Your task to perform on an android device: turn off picture-in-picture Image 0: 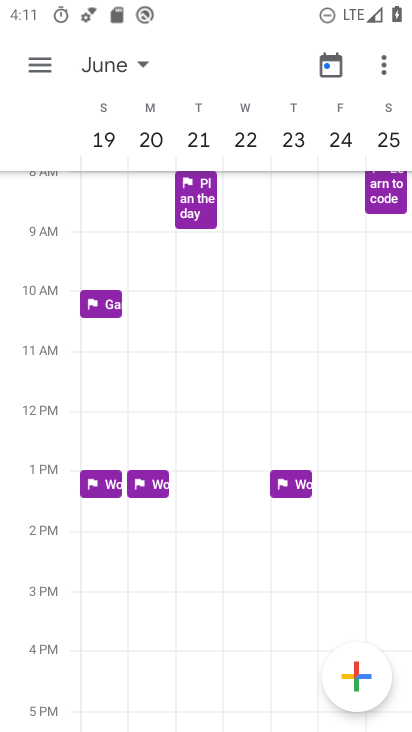
Step 0: press home button
Your task to perform on an android device: turn off picture-in-picture Image 1: 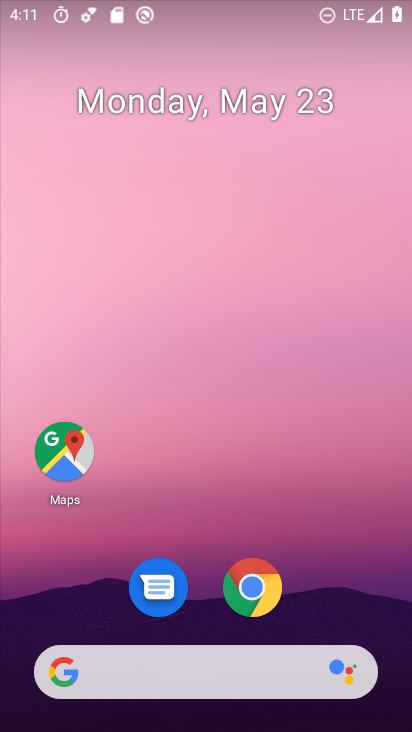
Step 1: click (237, 592)
Your task to perform on an android device: turn off picture-in-picture Image 2: 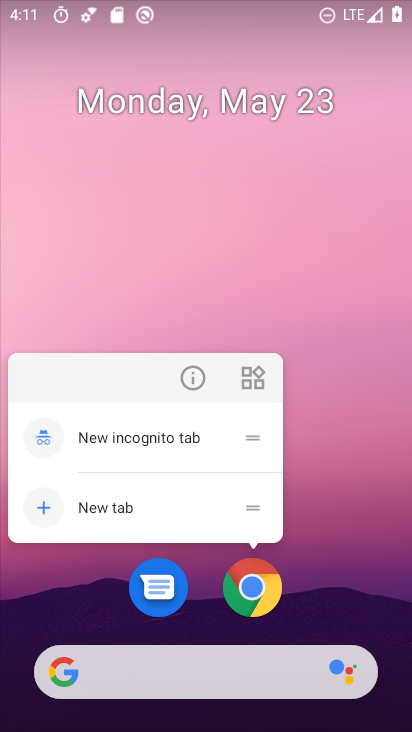
Step 2: click (195, 382)
Your task to perform on an android device: turn off picture-in-picture Image 3: 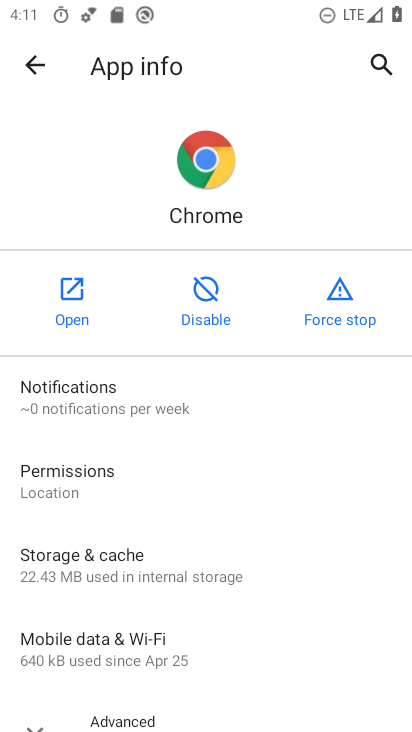
Step 3: drag from (145, 574) to (175, 259)
Your task to perform on an android device: turn off picture-in-picture Image 4: 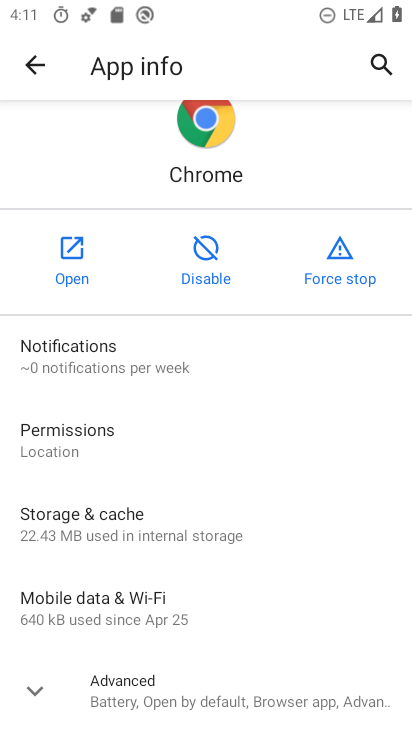
Step 4: click (140, 706)
Your task to perform on an android device: turn off picture-in-picture Image 5: 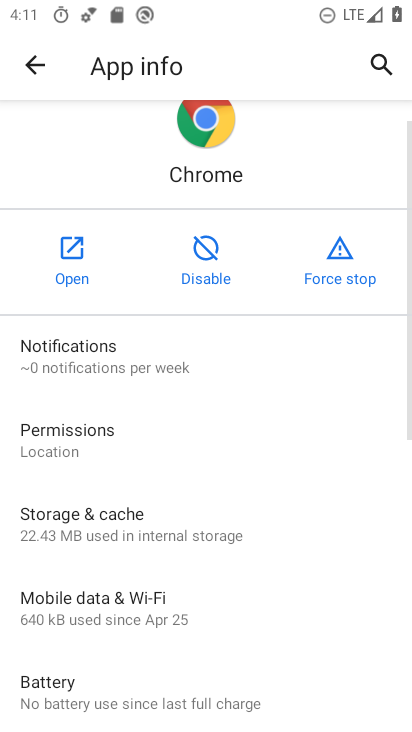
Step 5: drag from (132, 701) to (148, 458)
Your task to perform on an android device: turn off picture-in-picture Image 6: 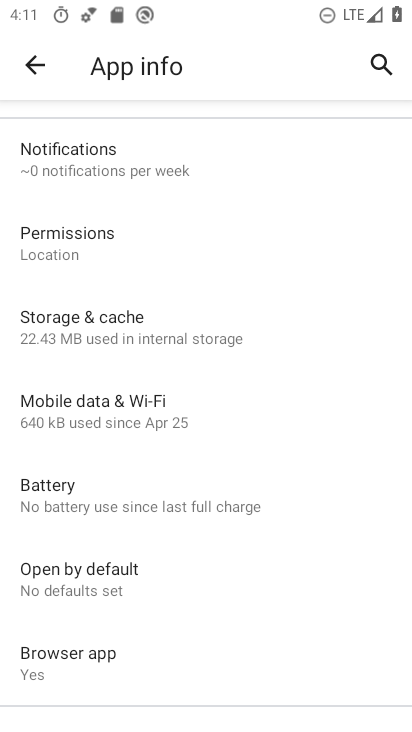
Step 6: drag from (124, 527) to (153, 158)
Your task to perform on an android device: turn off picture-in-picture Image 7: 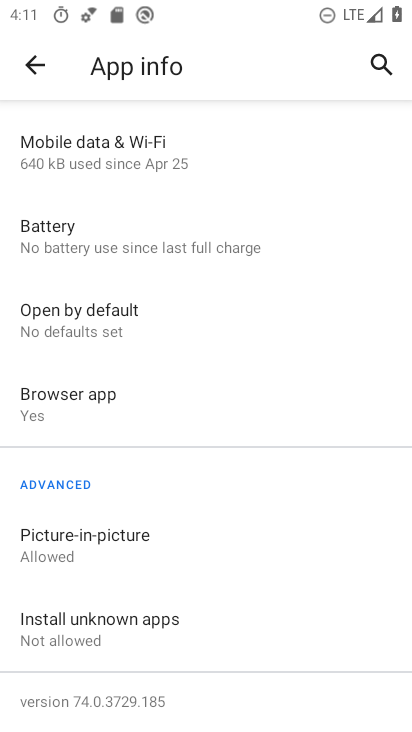
Step 7: click (91, 544)
Your task to perform on an android device: turn off picture-in-picture Image 8: 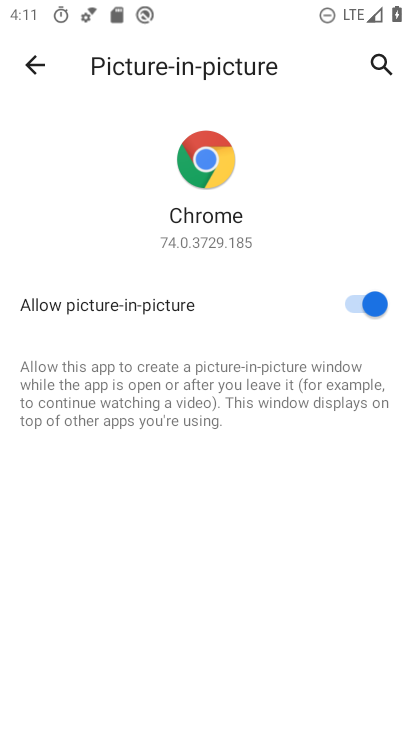
Step 8: click (344, 305)
Your task to perform on an android device: turn off picture-in-picture Image 9: 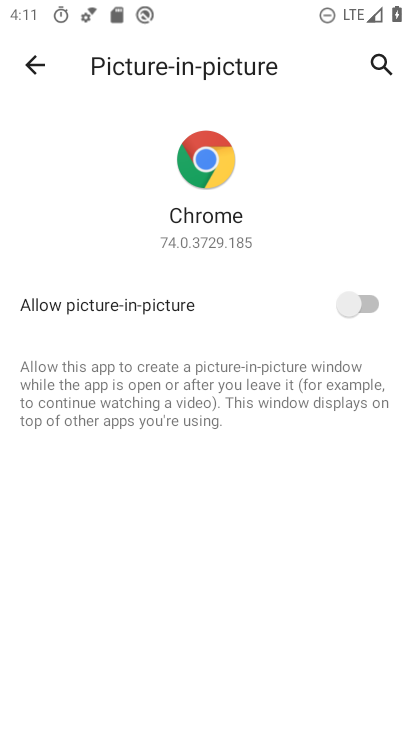
Step 9: task complete